Your task to perform on an android device: Open Reddit.com Image 0: 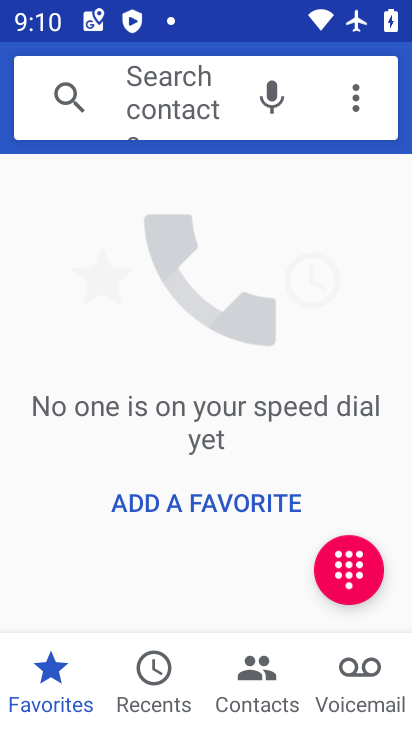
Step 0: press home button
Your task to perform on an android device: Open Reddit.com Image 1: 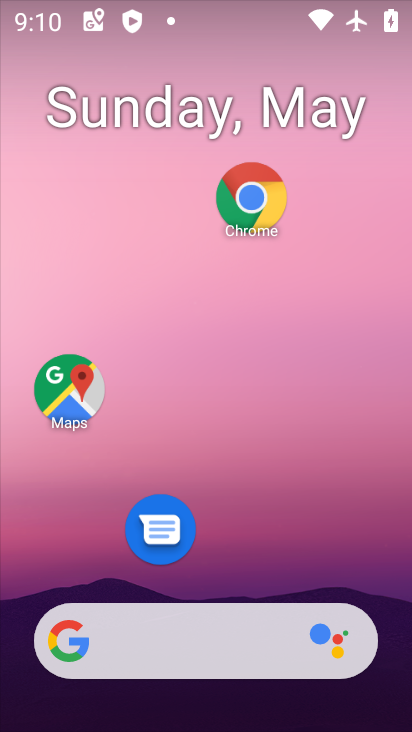
Step 1: click (244, 209)
Your task to perform on an android device: Open Reddit.com Image 2: 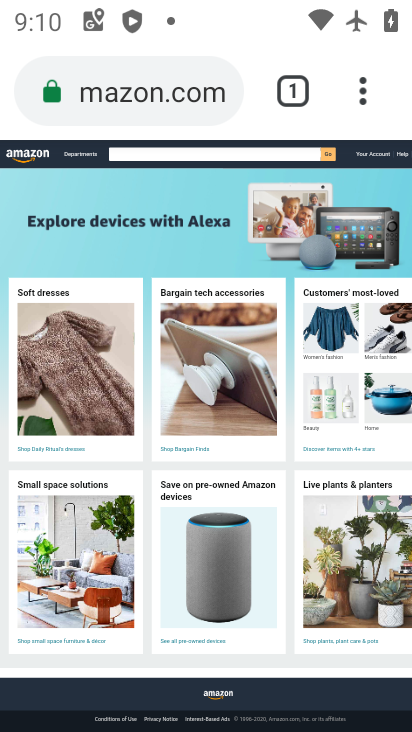
Step 2: click (117, 103)
Your task to perform on an android device: Open Reddit.com Image 3: 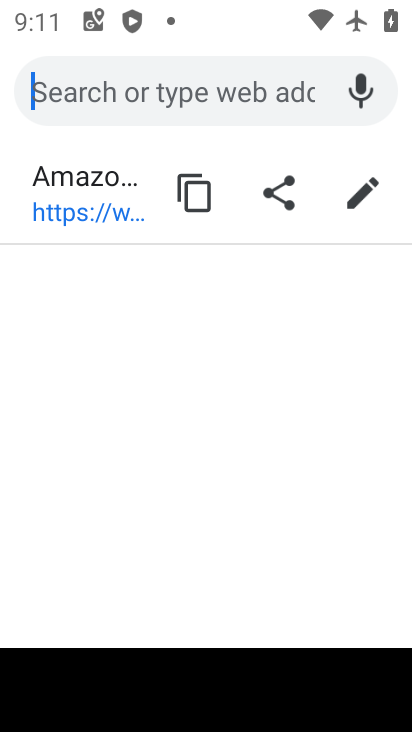
Step 3: type "reddit.com"
Your task to perform on an android device: Open Reddit.com Image 4: 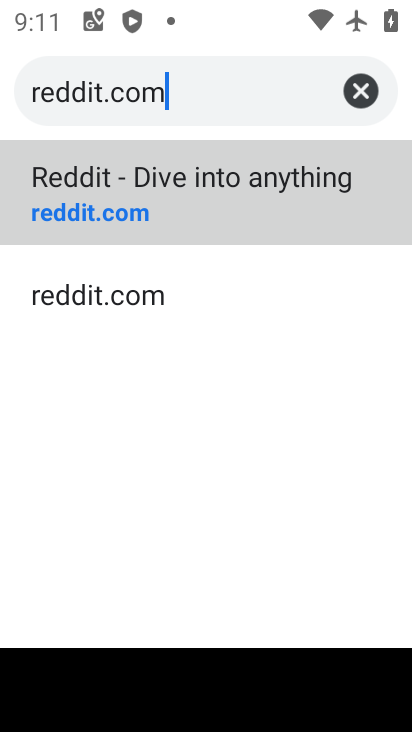
Step 4: click (274, 189)
Your task to perform on an android device: Open Reddit.com Image 5: 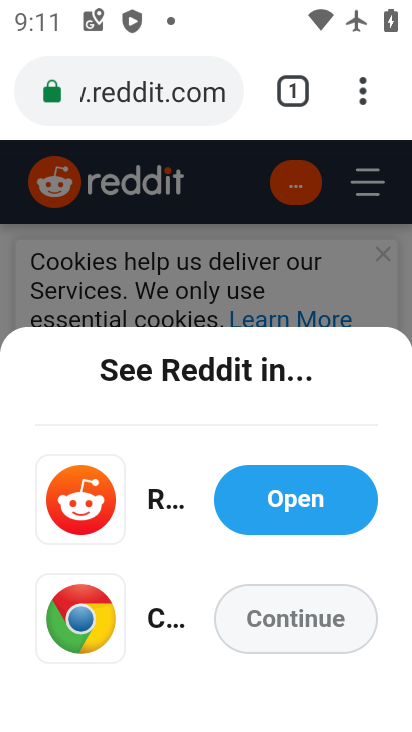
Step 5: task complete